Your task to perform on an android device: Go to Reddit.com Image 0: 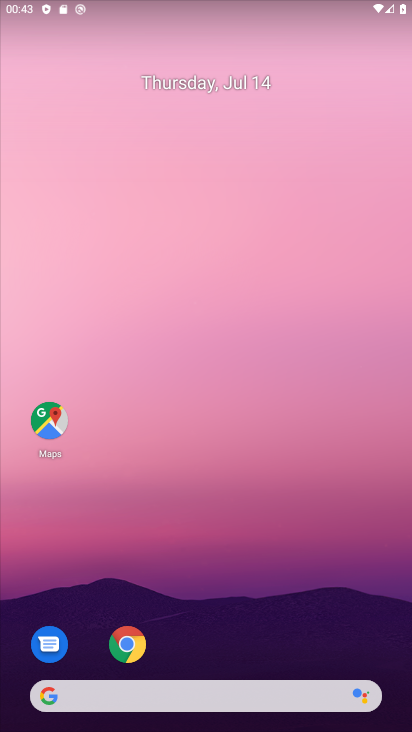
Step 0: click (128, 651)
Your task to perform on an android device: Go to Reddit.com Image 1: 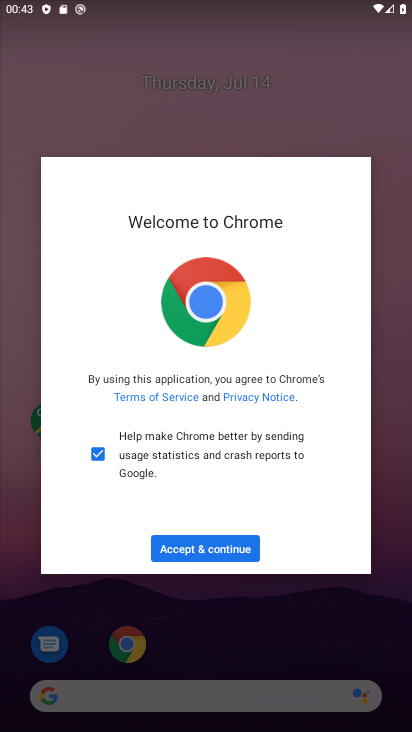
Step 1: click (198, 560)
Your task to perform on an android device: Go to Reddit.com Image 2: 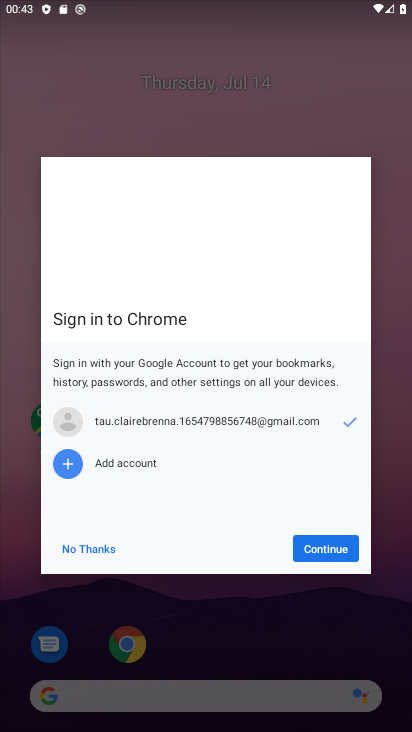
Step 2: click (303, 548)
Your task to perform on an android device: Go to Reddit.com Image 3: 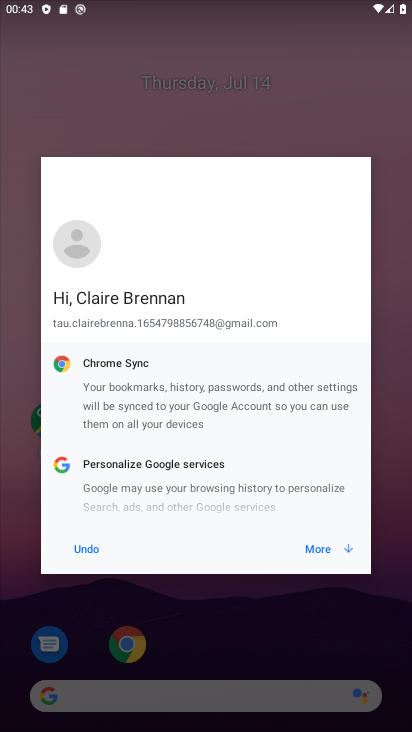
Step 3: click (309, 547)
Your task to perform on an android device: Go to Reddit.com Image 4: 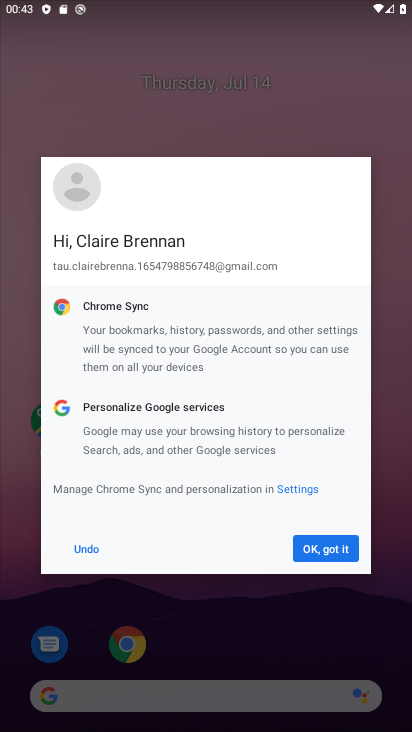
Step 4: click (325, 539)
Your task to perform on an android device: Go to Reddit.com Image 5: 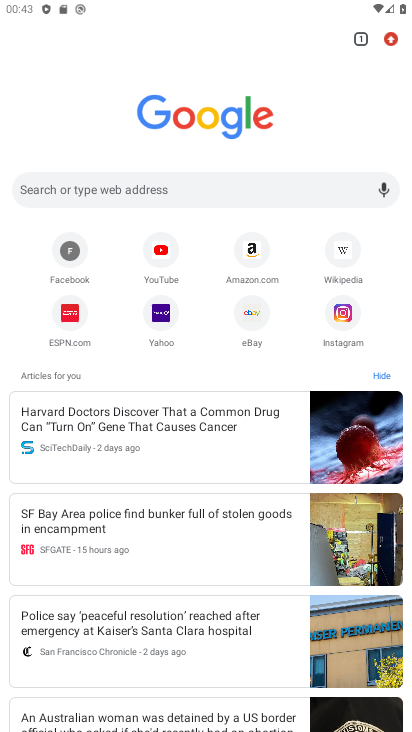
Step 5: click (109, 194)
Your task to perform on an android device: Go to Reddit.com Image 6: 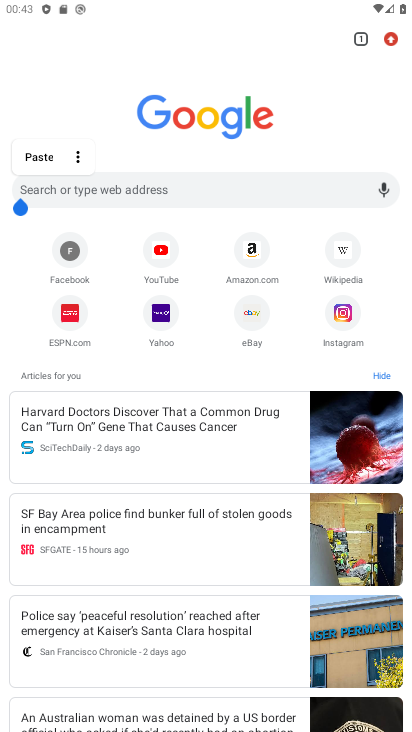
Step 6: click (103, 183)
Your task to perform on an android device: Go to Reddit.com Image 7: 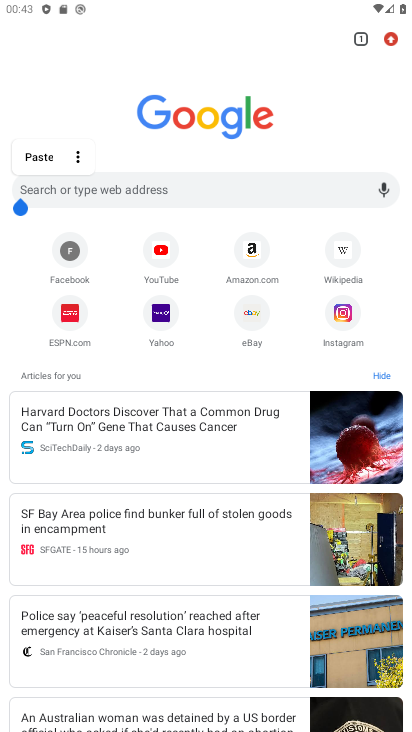
Step 7: click (85, 186)
Your task to perform on an android device: Go to Reddit.com Image 8: 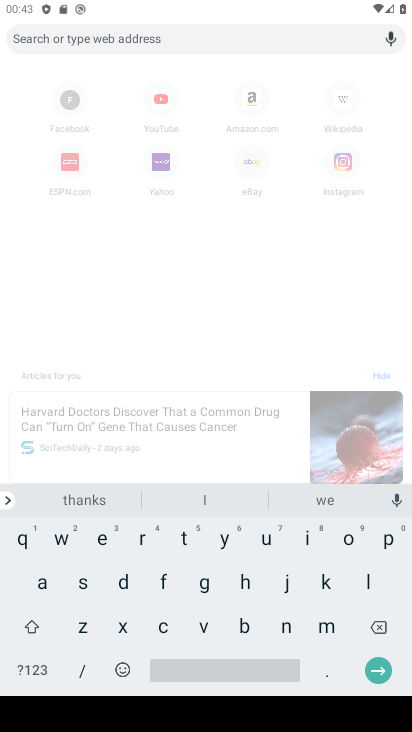
Step 8: click (130, 551)
Your task to perform on an android device: Go to Reddit.com Image 9: 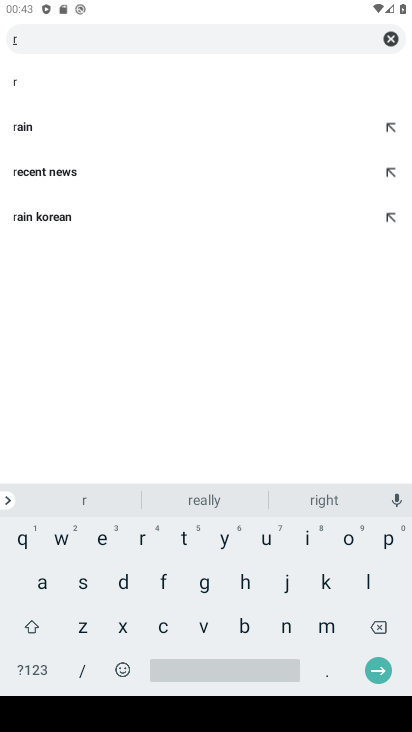
Step 9: click (98, 539)
Your task to perform on an android device: Go to Reddit.com Image 10: 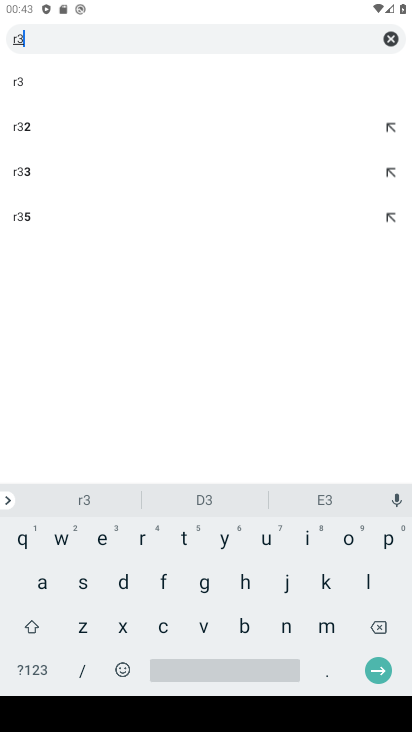
Step 10: click (378, 629)
Your task to perform on an android device: Go to Reddit.com Image 11: 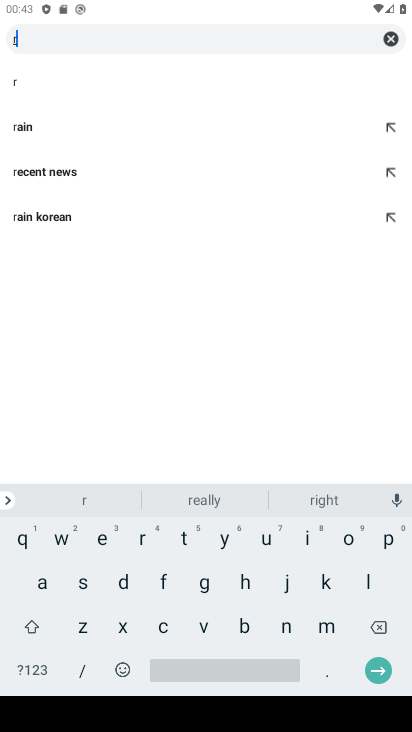
Step 11: click (100, 539)
Your task to perform on an android device: Go to Reddit.com Image 12: 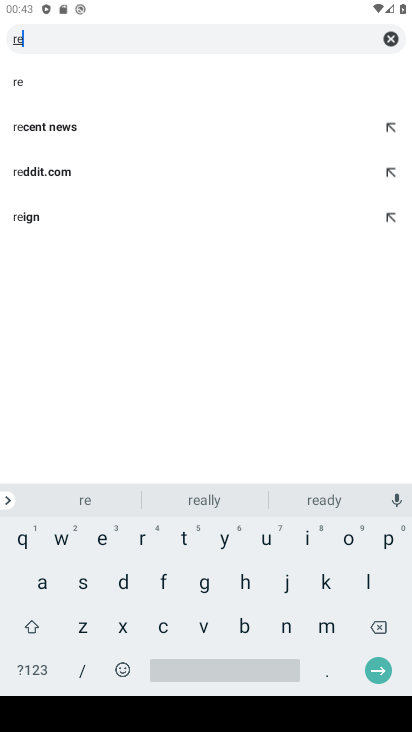
Step 12: click (122, 583)
Your task to perform on an android device: Go to Reddit.com Image 13: 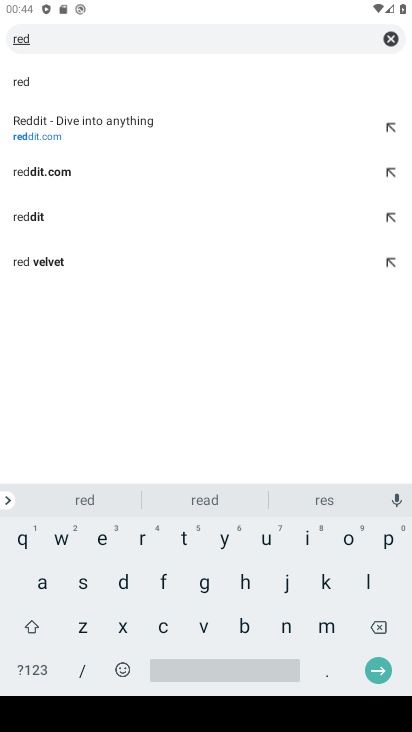
Step 13: click (56, 174)
Your task to perform on an android device: Go to Reddit.com Image 14: 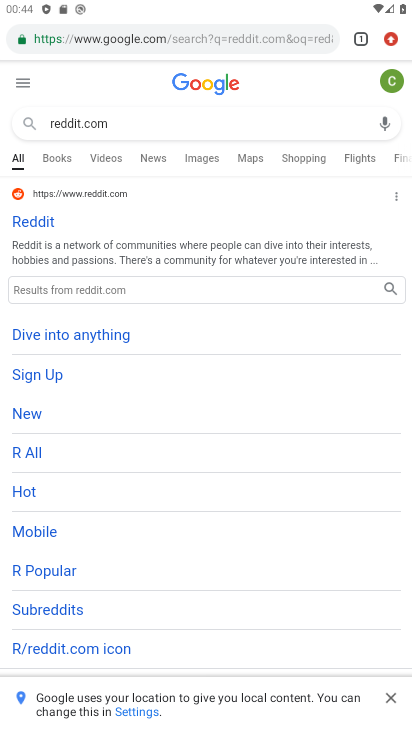
Step 14: click (42, 222)
Your task to perform on an android device: Go to Reddit.com Image 15: 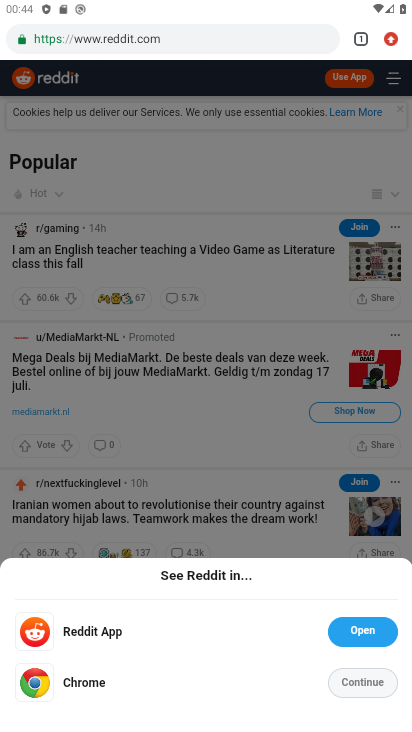
Step 15: click (350, 690)
Your task to perform on an android device: Go to Reddit.com Image 16: 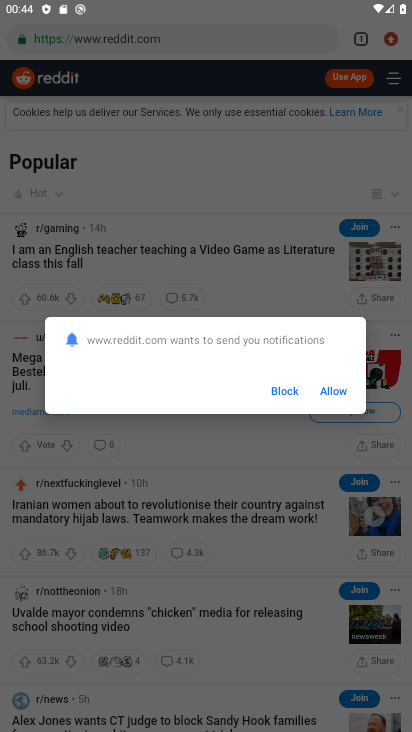
Step 16: click (326, 394)
Your task to perform on an android device: Go to Reddit.com Image 17: 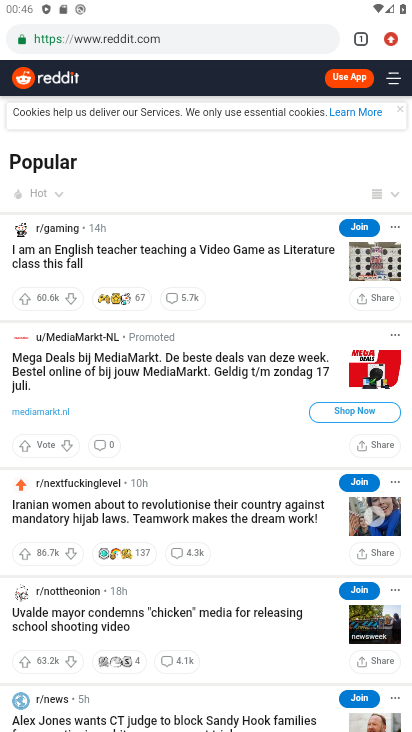
Step 17: task complete